Your task to perform on an android device: toggle improve location accuracy Image 0: 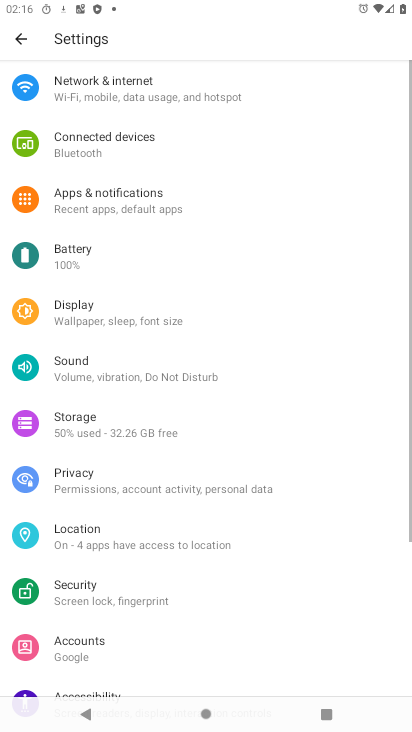
Step 0: press home button
Your task to perform on an android device: toggle improve location accuracy Image 1: 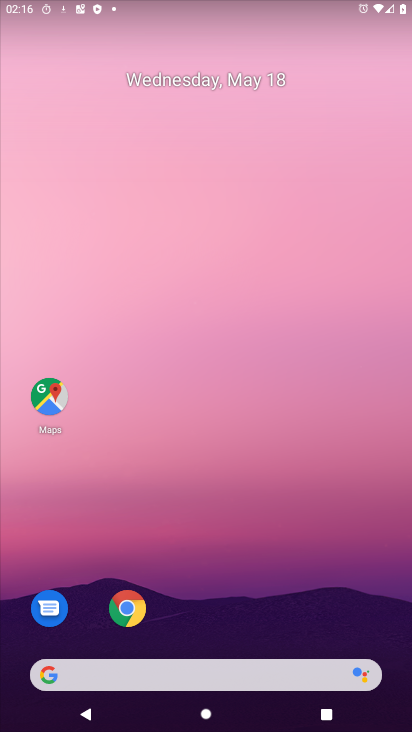
Step 1: drag from (258, 700) to (332, 317)
Your task to perform on an android device: toggle improve location accuracy Image 2: 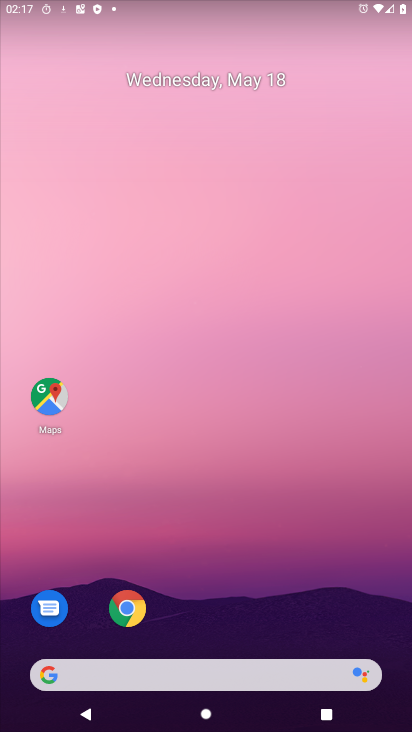
Step 2: drag from (266, 663) to (257, 91)
Your task to perform on an android device: toggle improve location accuracy Image 3: 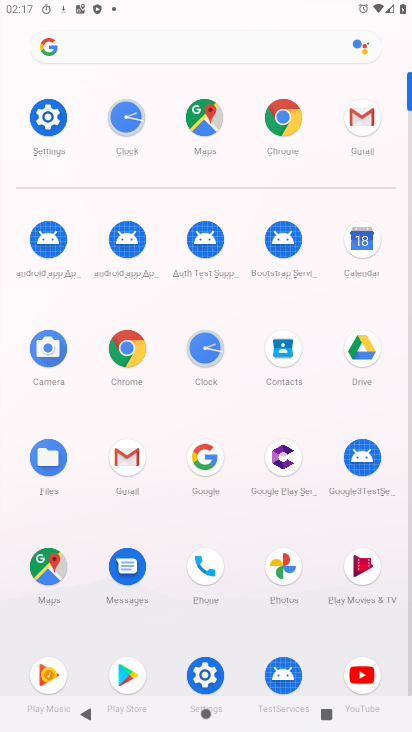
Step 3: click (194, 653)
Your task to perform on an android device: toggle improve location accuracy Image 4: 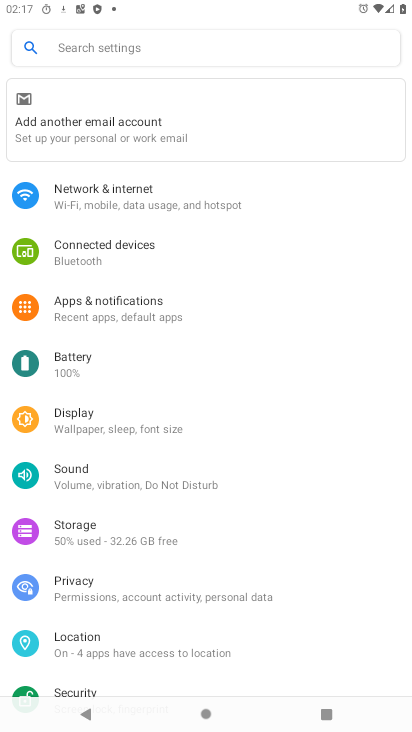
Step 4: click (137, 50)
Your task to perform on an android device: toggle improve location accuracy Image 5: 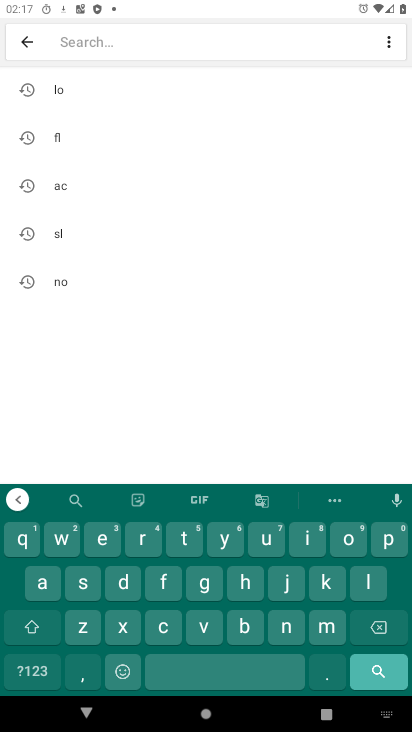
Step 5: click (87, 99)
Your task to perform on an android device: toggle improve location accuracy Image 6: 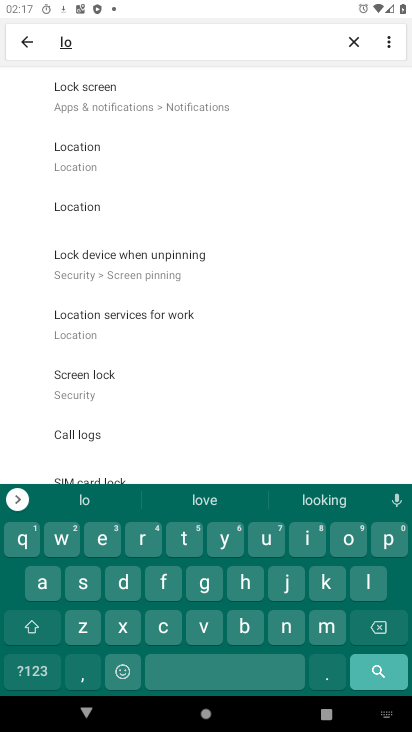
Step 6: click (95, 163)
Your task to perform on an android device: toggle improve location accuracy Image 7: 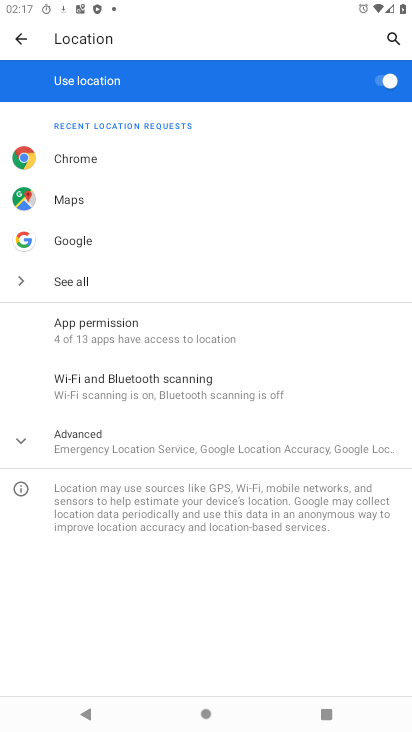
Step 7: click (19, 438)
Your task to perform on an android device: toggle improve location accuracy Image 8: 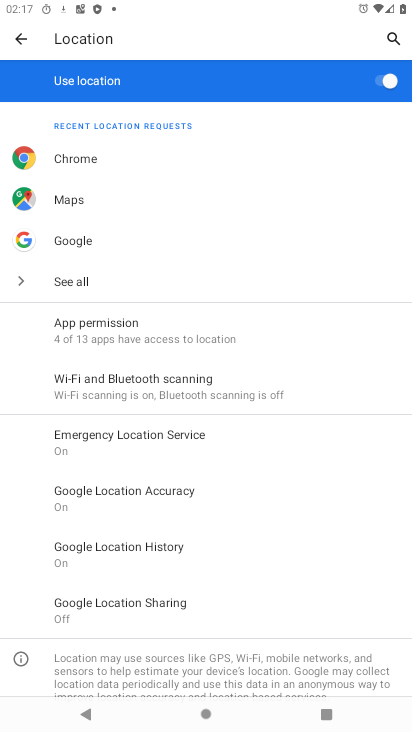
Step 8: click (162, 488)
Your task to perform on an android device: toggle improve location accuracy Image 9: 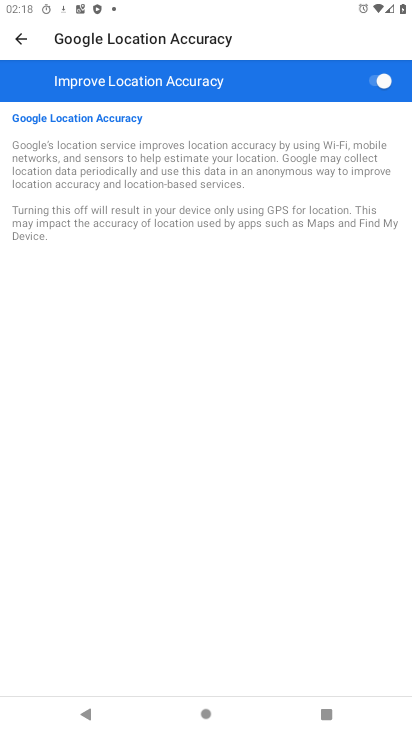
Step 9: task complete